Your task to perform on an android device: Open Chrome and go to settings Image 0: 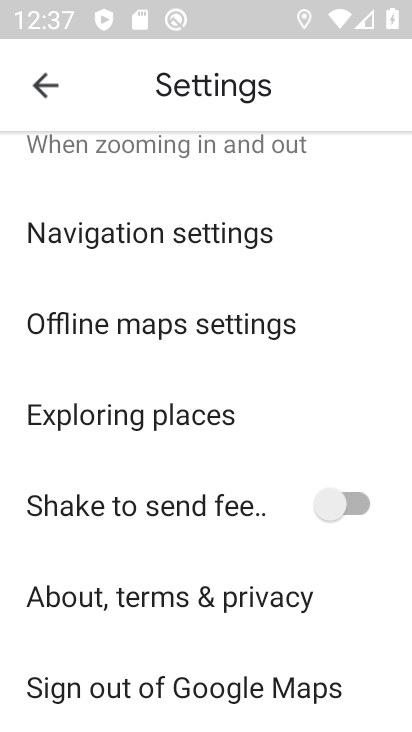
Step 0: press home button
Your task to perform on an android device: Open Chrome and go to settings Image 1: 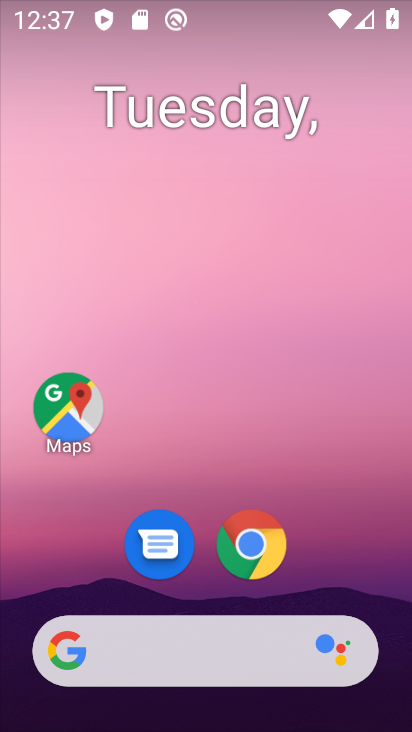
Step 1: click (251, 541)
Your task to perform on an android device: Open Chrome and go to settings Image 2: 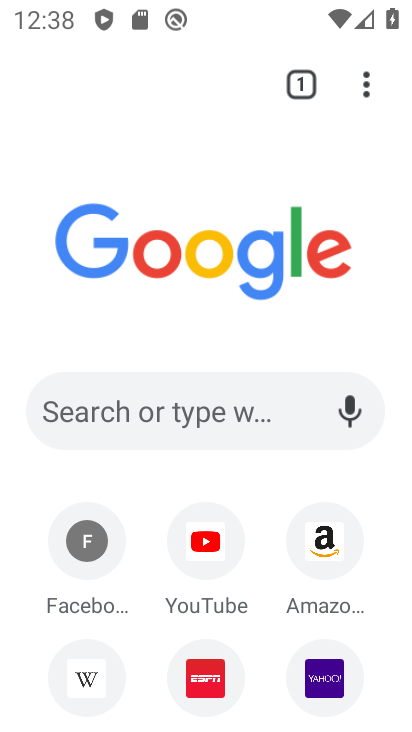
Step 2: click (367, 91)
Your task to perform on an android device: Open Chrome and go to settings Image 3: 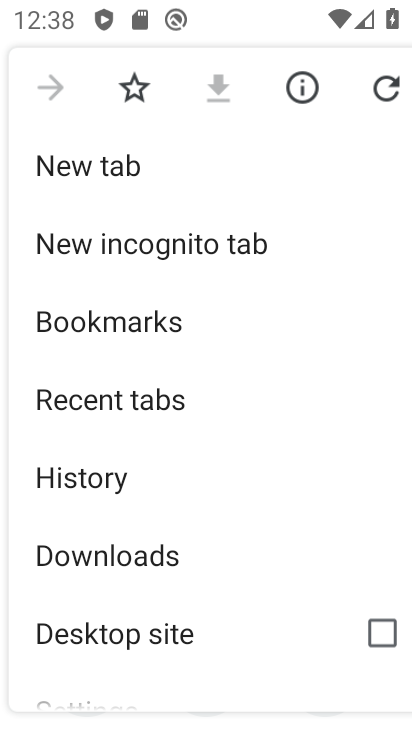
Step 3: drag from (227, 638) to (272, 293)
Your task to perform on an android device: Open Chrome and go to settings Image 4: 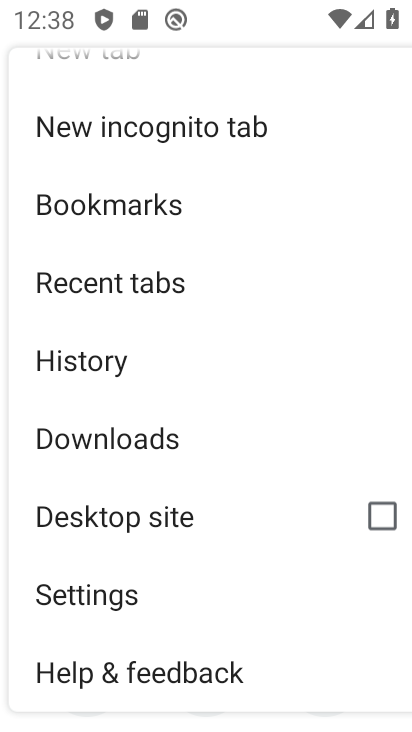
Step 4: click (91, 595)
Your task to perform on an android device: Open Chrome and go to settings Image 5: 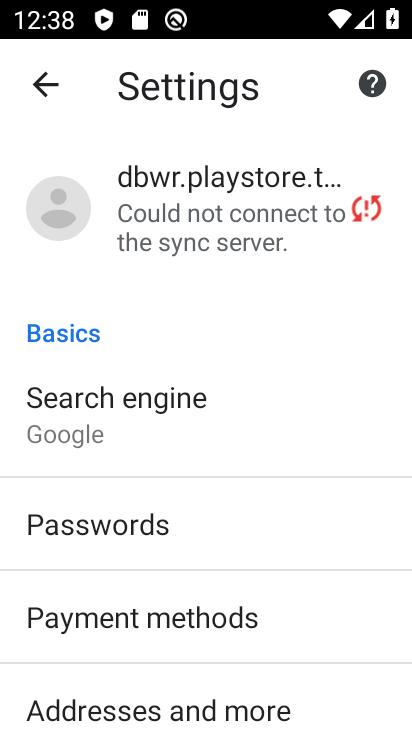
Step 5: task complete